Your task to perform on an android device: check the backup settings in the google photos Image 0: 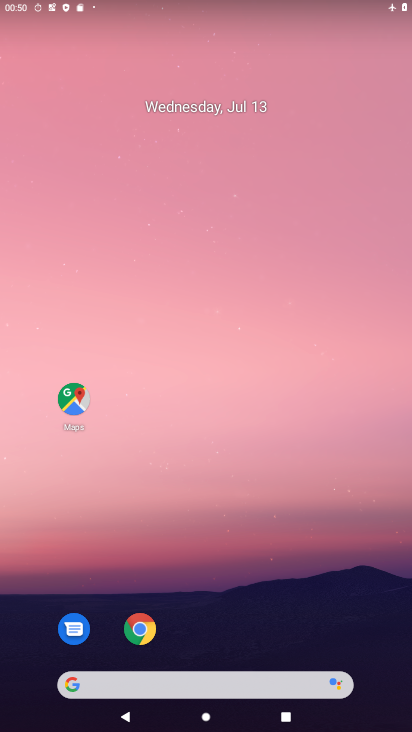
Step 0: drag from (209, 541) to (179, 287)
Your task to perform on an android device: check the backup settings in the google photos Image 1: 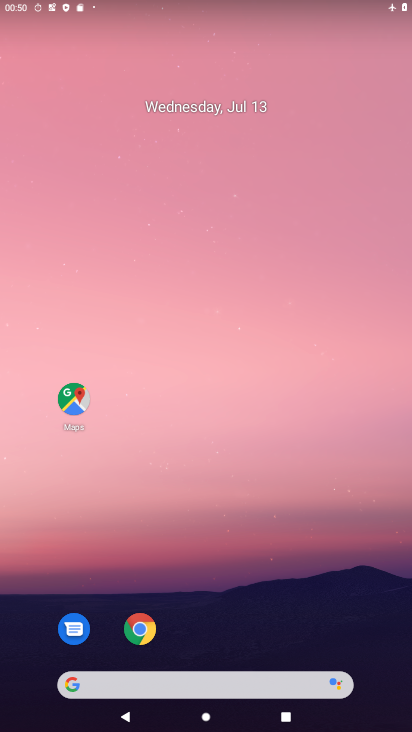
Step 1: drag from (227, 642) to (225, 291)
Your task to perform on an android device: check the backup settings in the google photos Image 2: 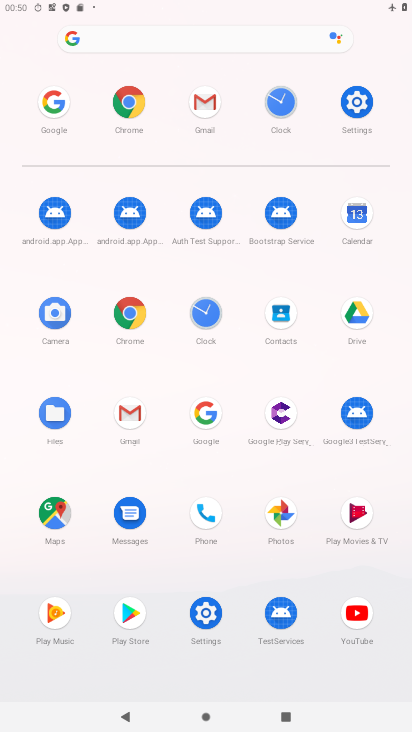
Step 2: click (276, 521)
Your task to perform on an android device: check the backup settings in the google photos Image 3: 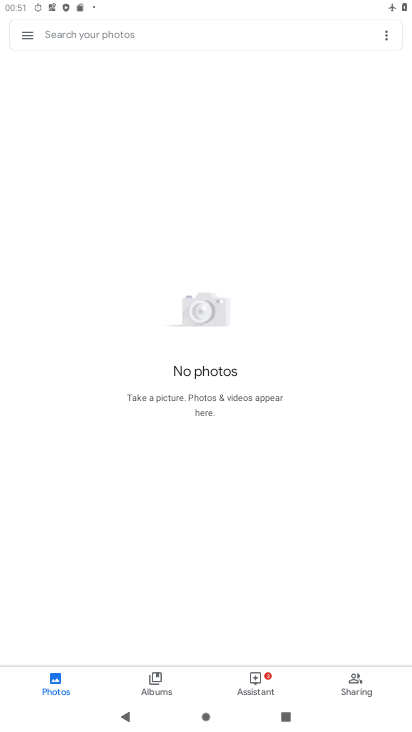
Step 3: click (23, 37)
Your task to perform on an android device: check the backup settings in the google photos Image 4: 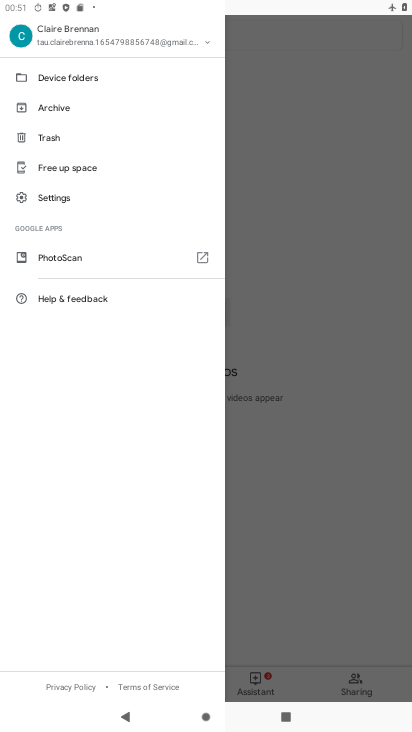
Step 4: click (71, 204)
Your task to perform on an android device: check the backup settings in the google photos Image 5: 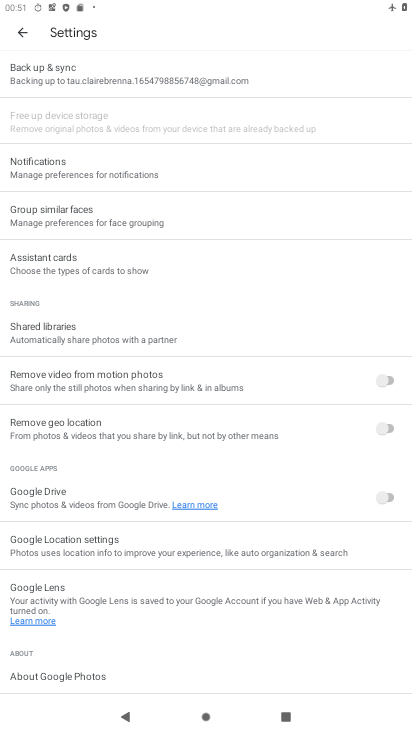
Step 5: click (71, 92)
Your task to perform on an android device: check the backup settings in the google photos Image 6: 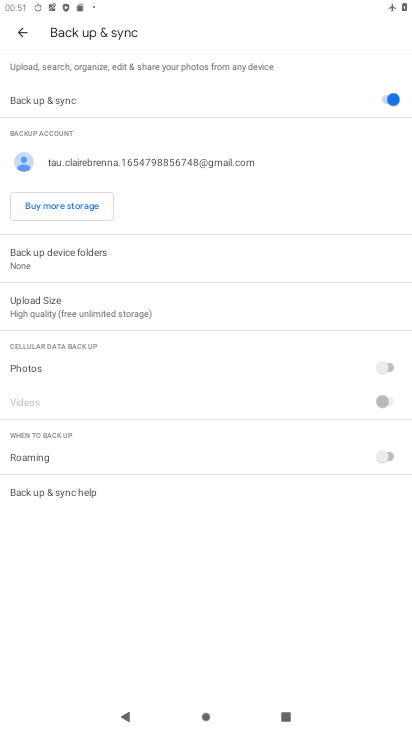
Step 6: task complete